Your task to perform on an android device: toggle improve location accuracy Image 0: 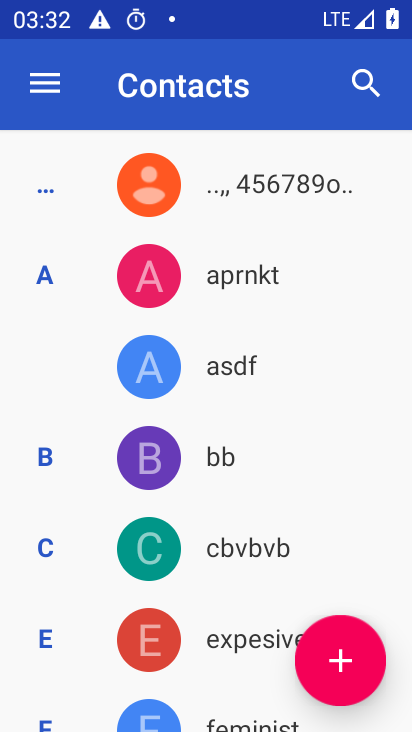
Step 0: press home button
Your task to perform on an android device: toggle improve location accuracy Image 1: 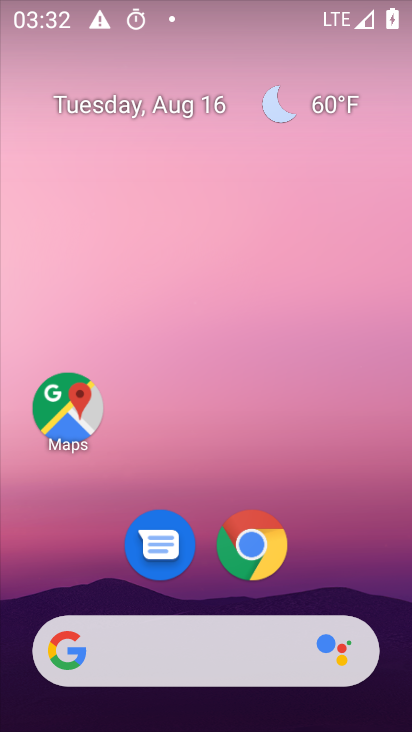
Step 1: drag from (197, 606) to (254, 121)
Your task to perform on an android device: toggle improve location accuracy Image 2: 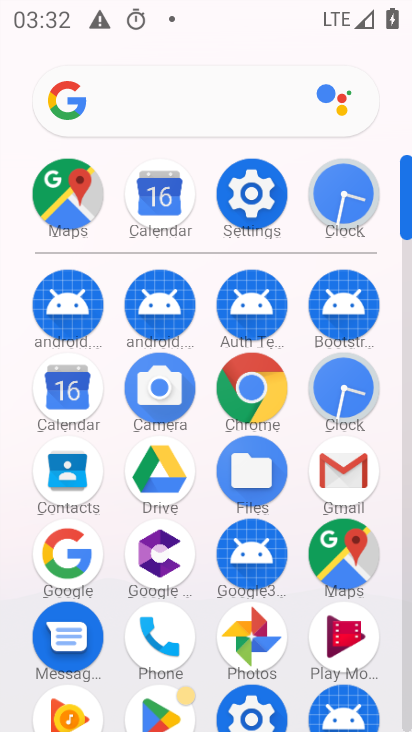
Step 2: click (251, 203)
Your task to perform on an android device: toggle improve location accuracy Image 3: 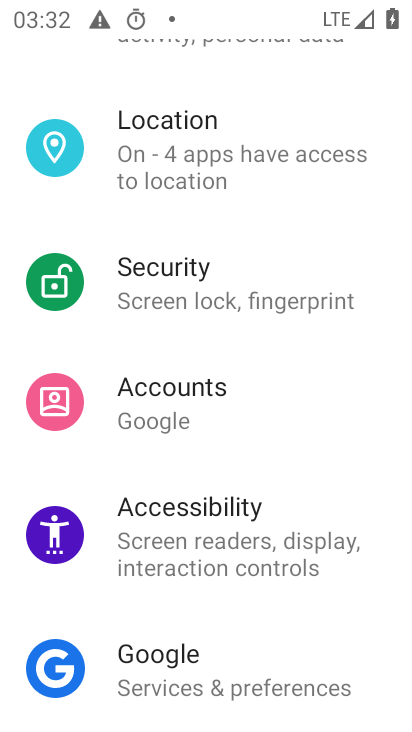
Step 3: click (176, 165)
Your task to perform on an android device: toggle improve location accuracy Image 4: 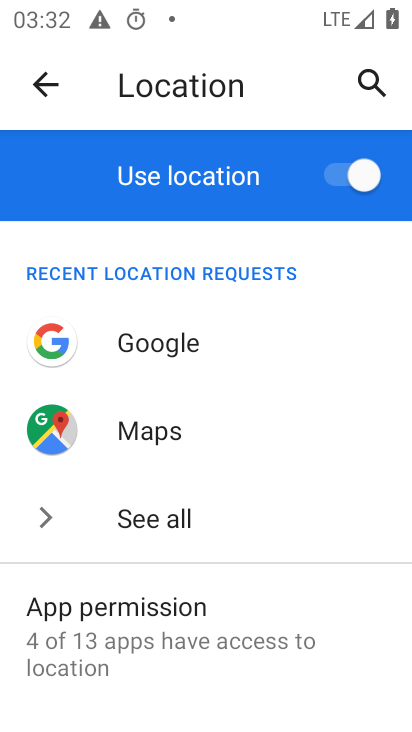
Step 4: drag from (183, 676) to (179, 259)
Your task to perform on an android device: toggle improve location accuracy Image 5: 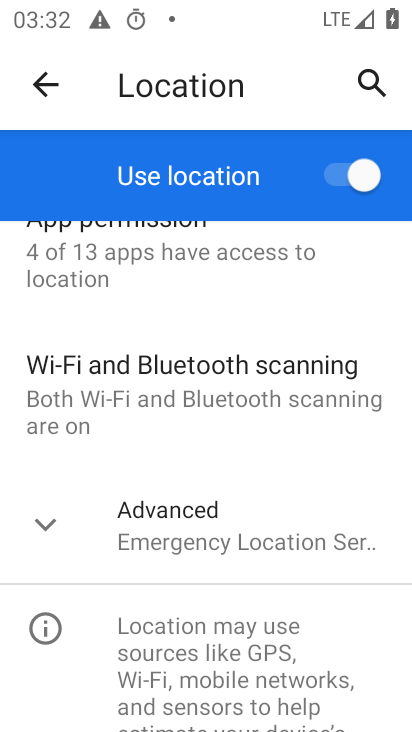
Step 5: click (160, 526)
Your task to perform on an android device: toggle improve location accuracy Image 6: 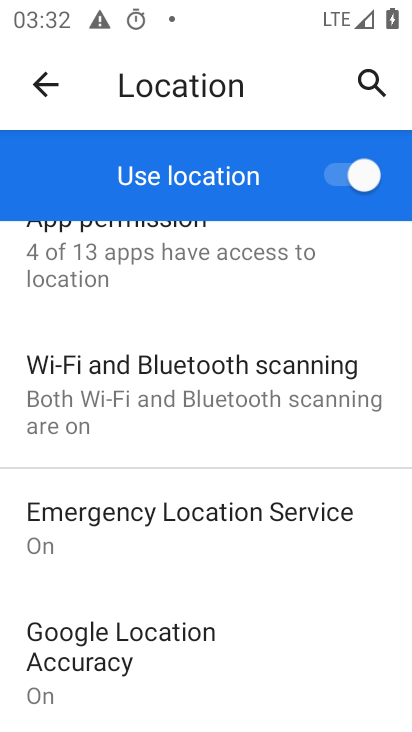
Step 6: drag from (171, 646) to (166, 353)
Your task to perform on an android device: toggle improve location accuracy Image 7: 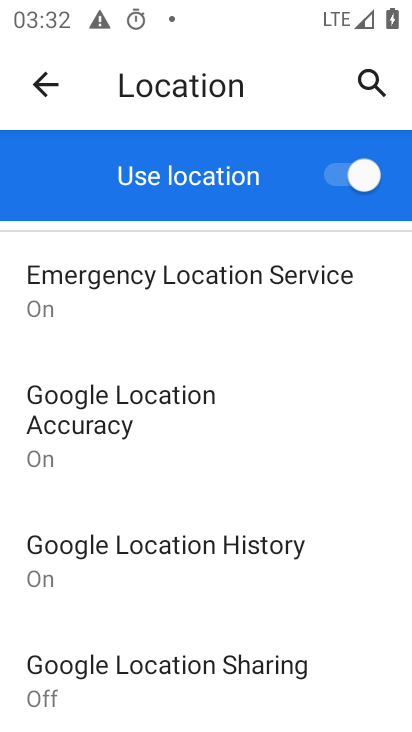
Step 7: click (72, 423)
Your task to perform on an android device: toggle improve location accuracy Image 8: 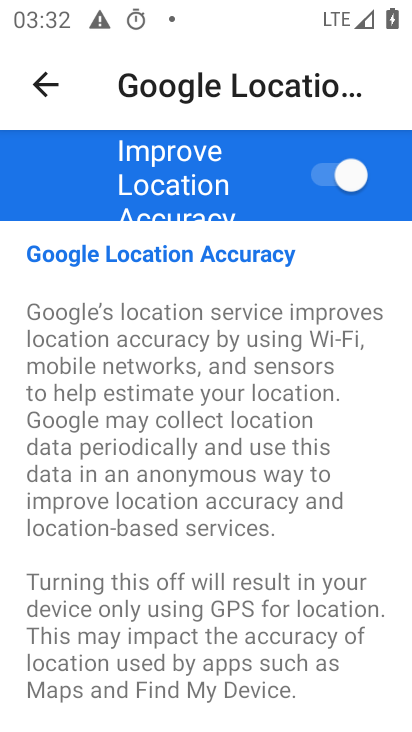
Step 8: click (300, 174)
Your task to perform on an android device: toggle improve location accuracy Image 9: 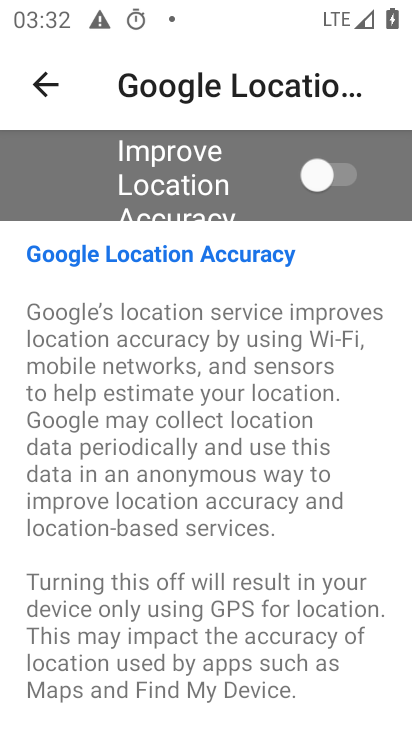
Step 9: task complete